Your task to perform on an android device: Search for Mexican restaurants on Maps Image 0: 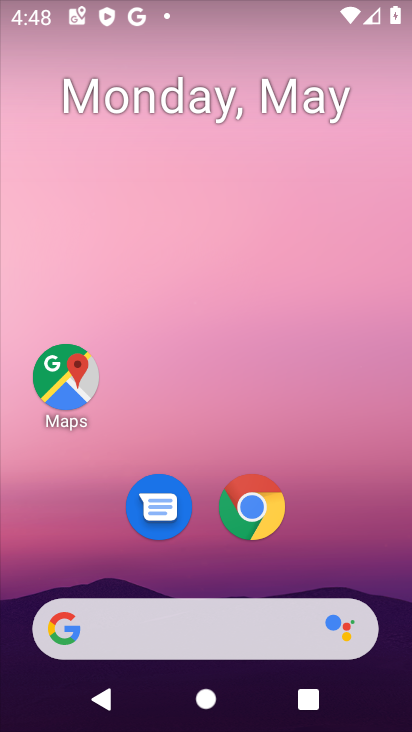
Step 0: drag from (354, 515) to (399, 58)
Your task to perform on an android device: Search for Mexican restaurants on Maps Image 1: 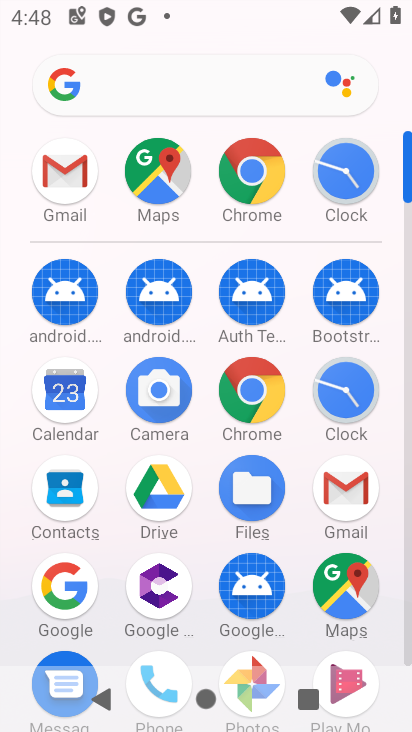
Step 1: click (166, 192)
Your task to perform on an android device: Search for Mexican restaurants on Maps Image 2: 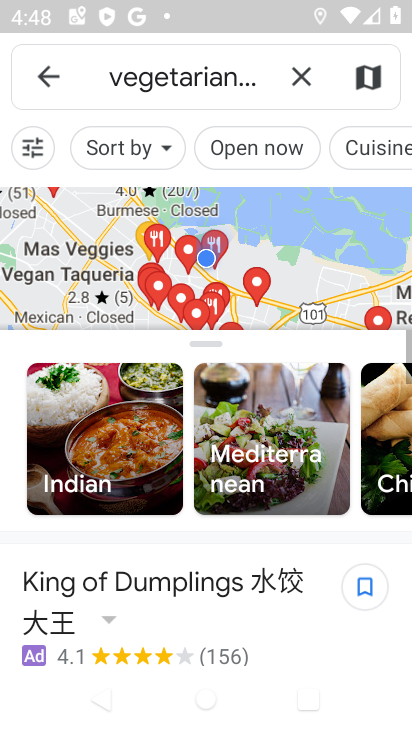
Step 2: click (308, 70)
Your task to perform on an android device: Search for Mexican restaurants on Maps Image 3: 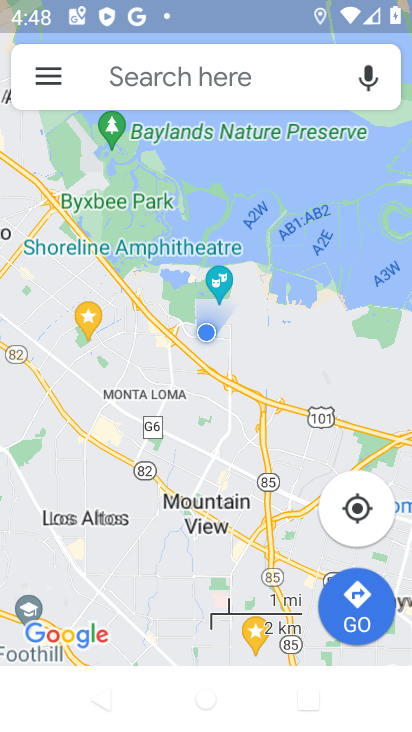
Step 3: click (247, 83)
Your task to perform on an android device: Search for Mexican restaurants on Maps Image 4: 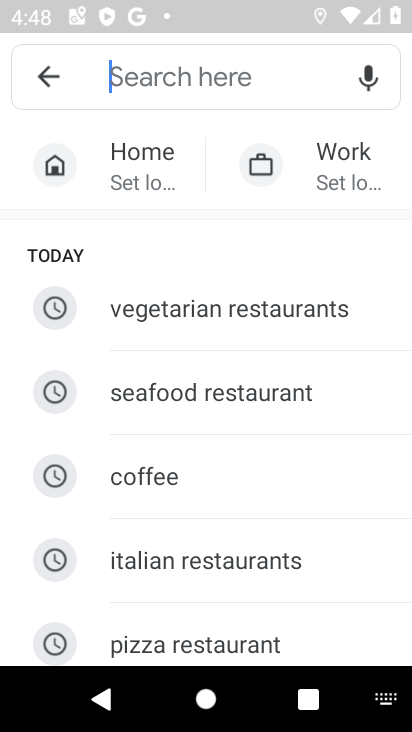
Step 4: drag from (269, 618) to (275, 218)
Your task to perform on an android device: Search for Mexican restaurants on Maps Image 5: 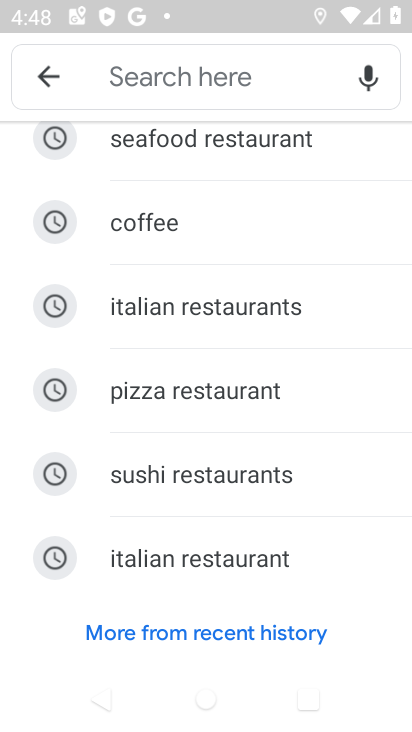
Step 5: drag from (260, 603) to (253, 169)
Your task to perform on an android device: Search for Mexican restaurants on Maps Image 6: 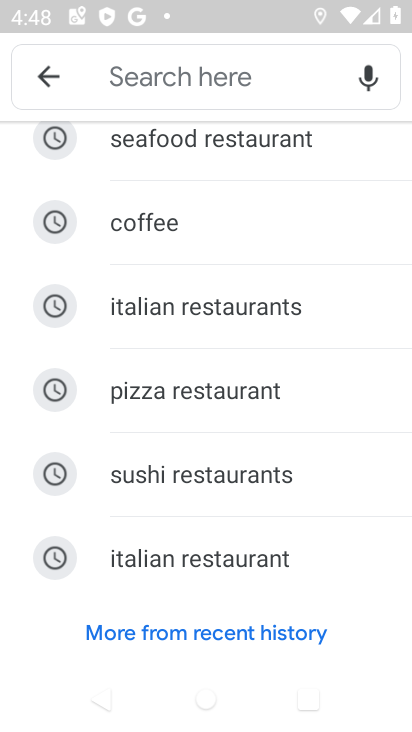
Step 6: drag from (253, 177) to (255, 574)
Your task to perform on an android device: Search for Mexican restaurants on Maps Image 7: 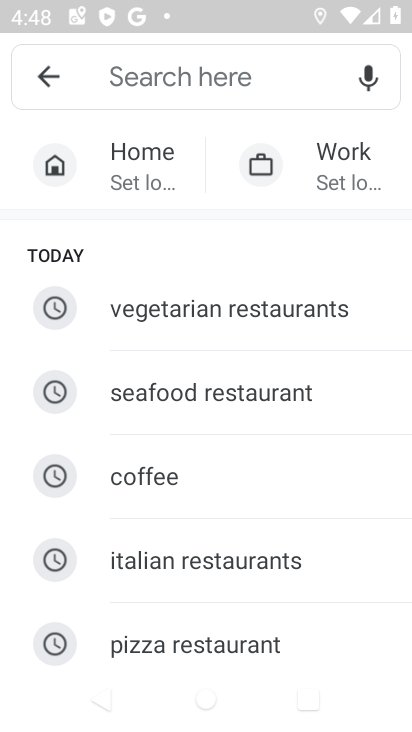
Step 7: drag from (252, 592) to (257, 206)
Your task to perform on an android device: Search for Mexican restaurants on Maps Image 8: 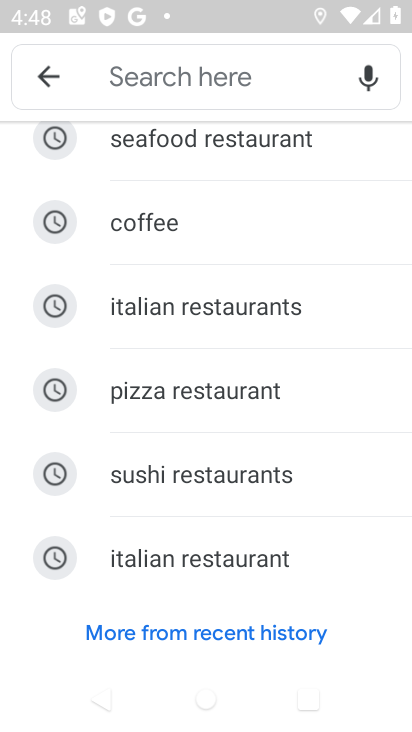
Step 8: click (227, 638)
Your task to perform on an android device: Search for Mexican restaurants on Maps Image 9: 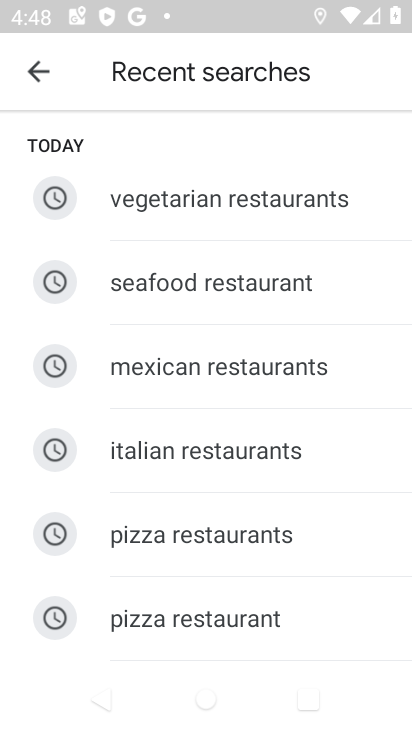
Step 9: drag from (223, 594) to (206, 98)
Your task to perform on an android device: Search for Mexican restaurants on Maps Image 10: 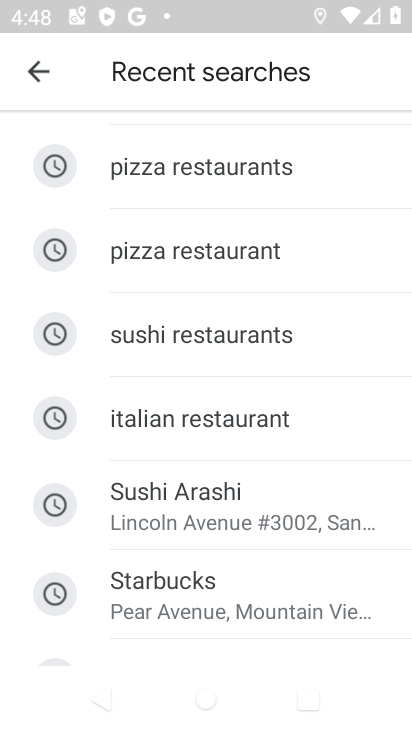
Step 10: drag from (222, 592) to (226, 229)
Your task to perform on an android device: Search for Mexican restaurants on Maps Image 11: 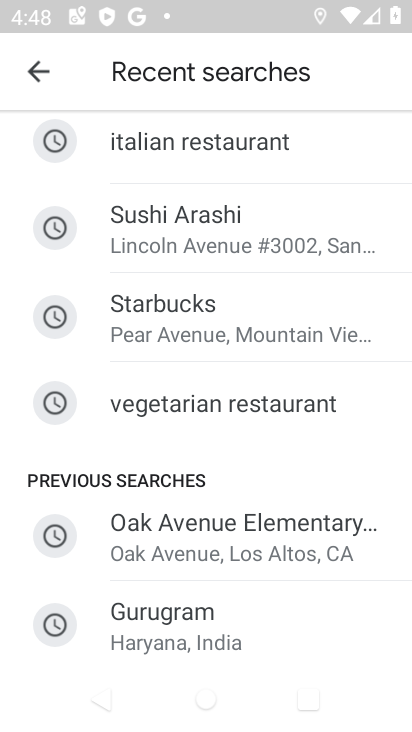
Step 11: drag from (230, 192) to (273, 671)
Your task to perform on an android device: Search for Mexican restaurants on Maps Image 12: 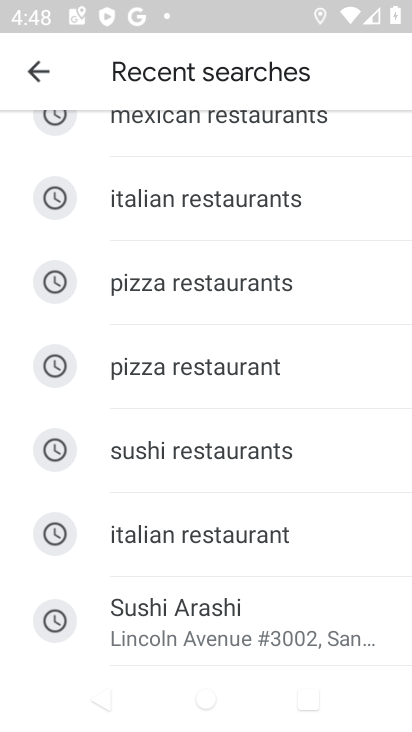
Step 12: drag from (210, 213) to (286, 680)
Your task to perform on an android device: Search for Mexican restaurants on Maps Image 13: 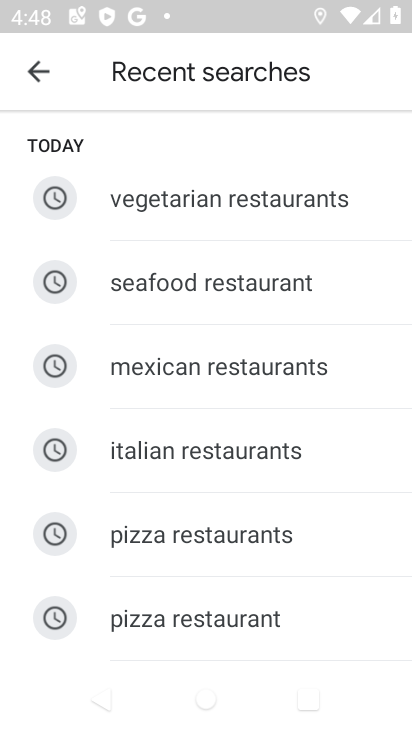
Step 13: click (212, 374)
Your task to perform on an android device: Search for Mexican restaurants on Maps Image 14: 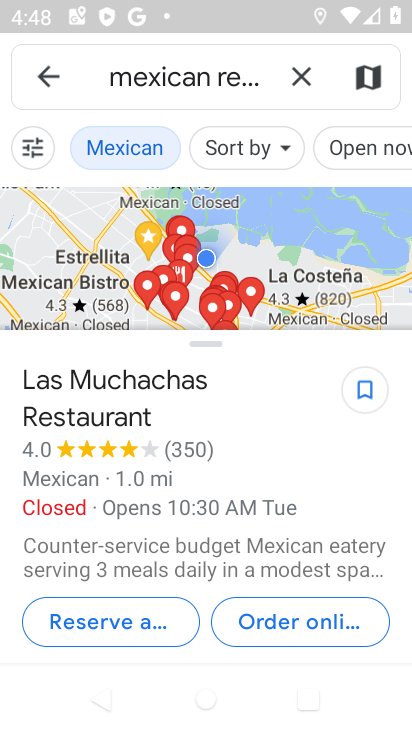
Step 14: task complete